Your task to perform on an android device: add a contact Image 0: 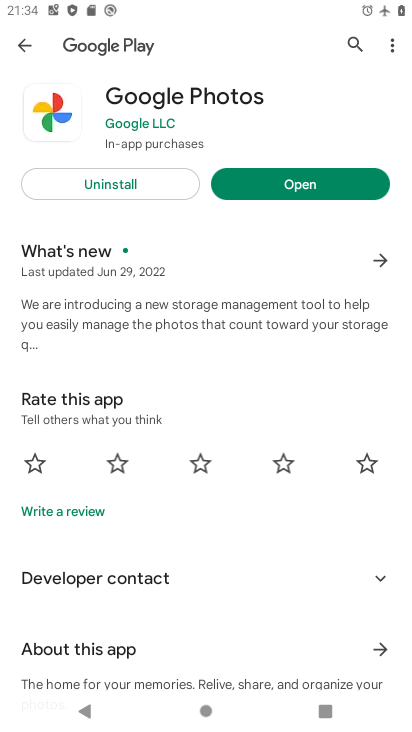
Step 0: press home button
Your task to perform on an android device: add a contact Image 1: 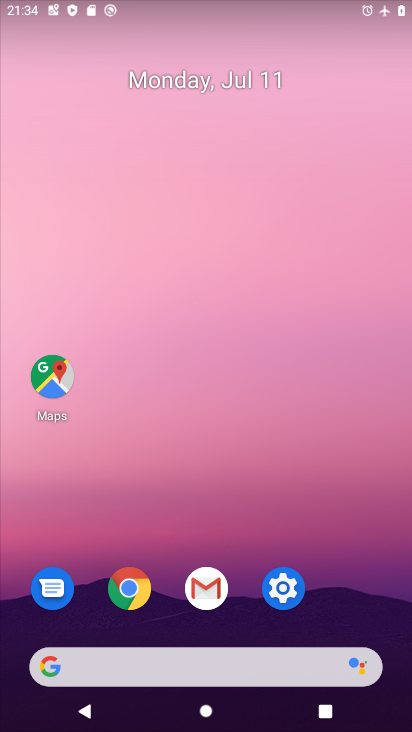
Step 1: drag from (298, 689) to (314, 208)
Your task to perform on an android device: add a contact Image 2: 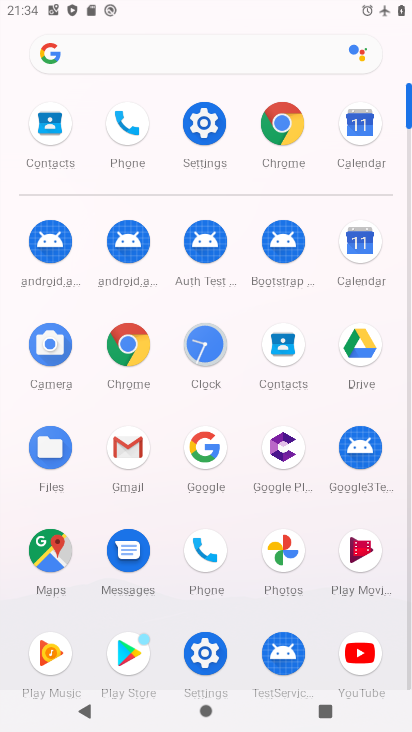
Step 2: click (186, 557)
Your task to perform on an android device: add a contact Image 3: 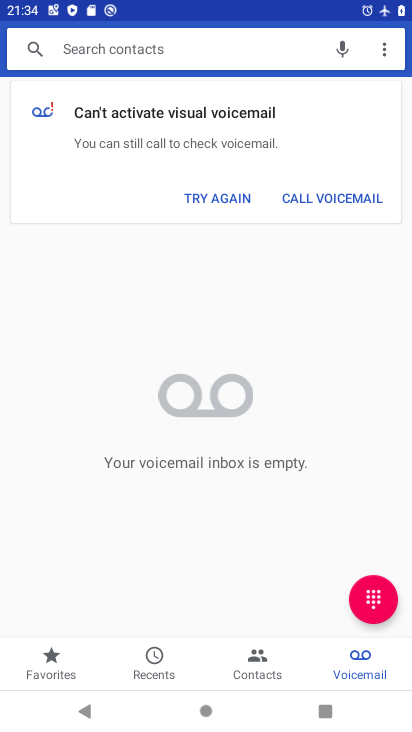
Step 3: click (254, 658)
Your task to perform on an android device: add a contact Image 4: 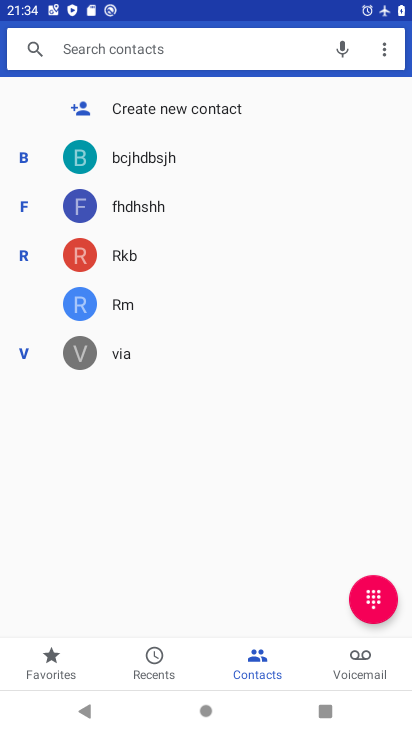
Step 4: click (183, 113)
Your task to perform on an android device: add a contact Image 5: 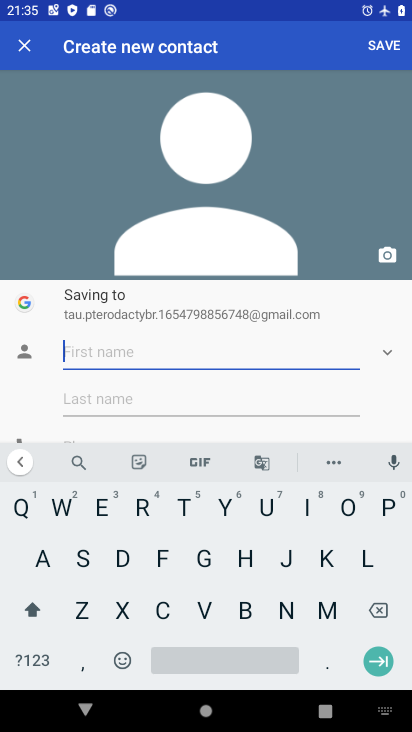
Step 5: click (187, 515)
Your task to perform on an android device: add a contact Image 6: 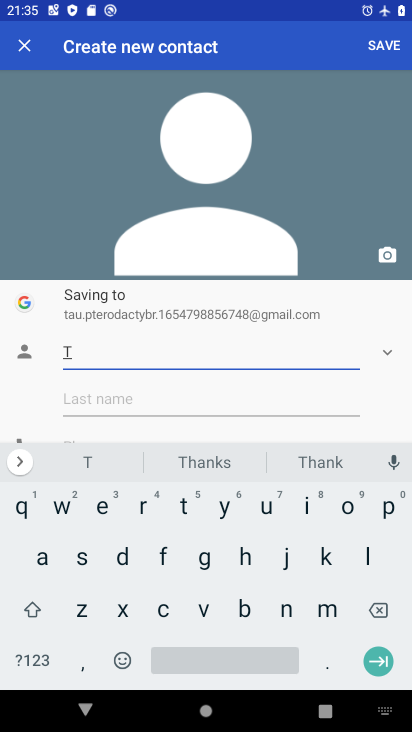
Step 6: click (223, 516)
Your task to perform on an android device: add a contact Image 7: 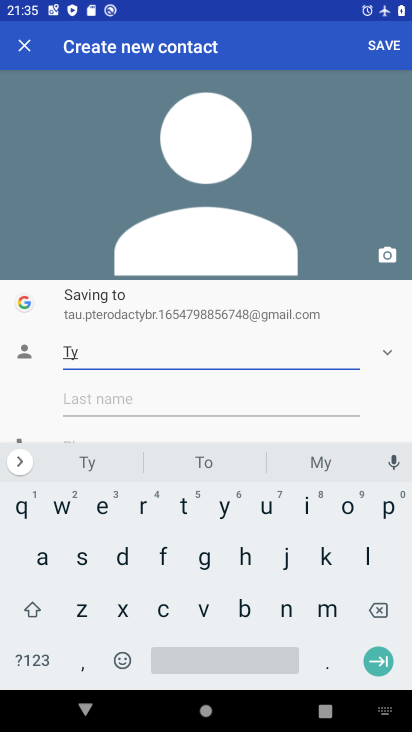
Step 7: click (143, 432)
Your task to perform on an android device: add a contact Image 8: 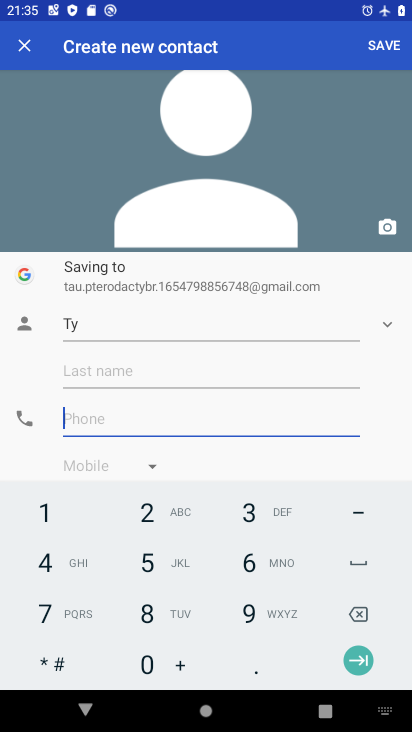
Step 8: click (158, 561)
Your task to perform on an android device: add a contact Image 9: 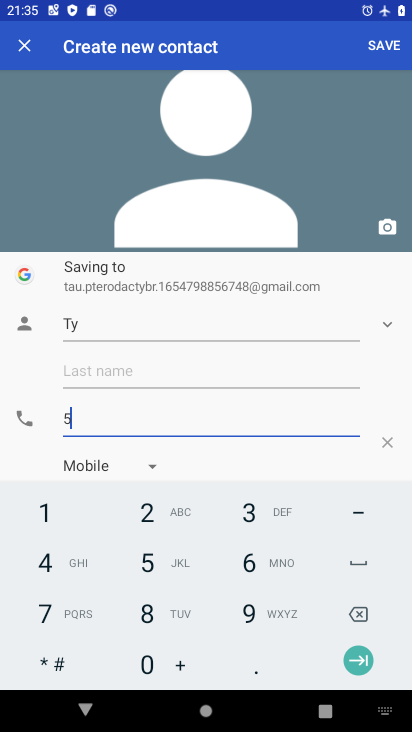
Step 9: click (147, 603)
Your task to perform on an android device: add a contact Image 10: 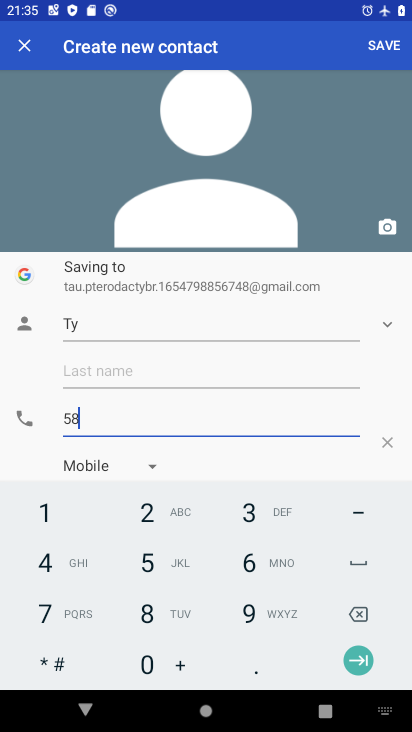
Step 10: click (60, 612)
Your task to perform on an android device: add a contact Image 11: 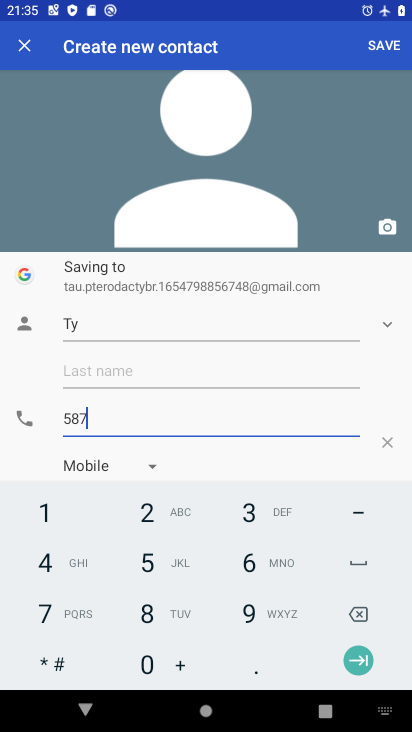
Step 11: click (48, 564)
Your task to perform on an android device: add a contact Image 12: 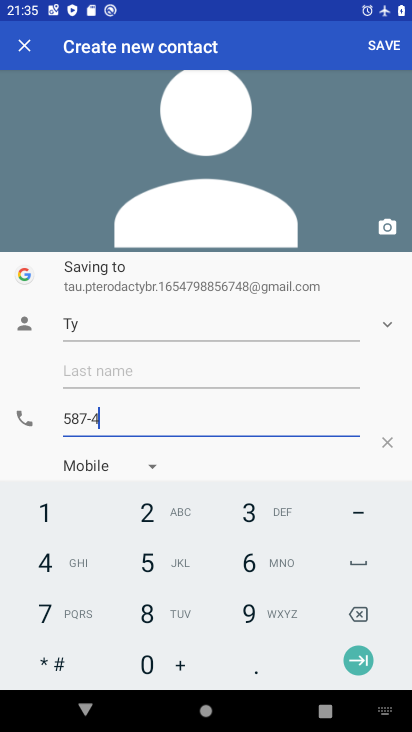
Step 12: click (372, 42)
Your task to perform on an android device: add a contact Image 13: 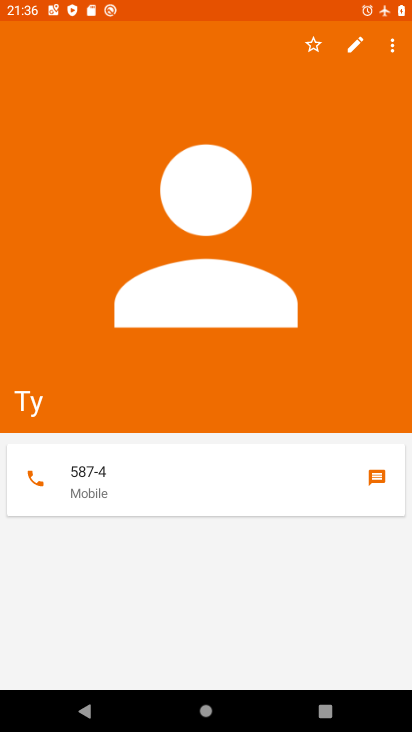
Step 13: task complete